Your task to perform on an android device: Go to Google maps Image 0: 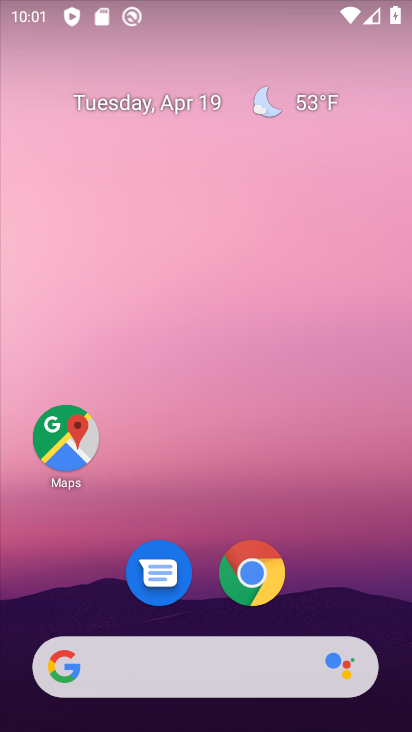
Step 0: drag from (199, 726) to (201, 136)
Your task to perform on an android device: Go to Google maps Image 1: 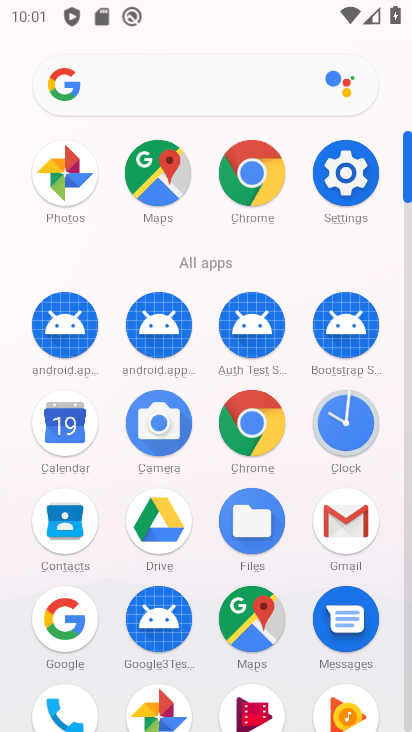
Step 1: click (251, 622)
Your task to perform on an android device: Go to Google maps Image 2: 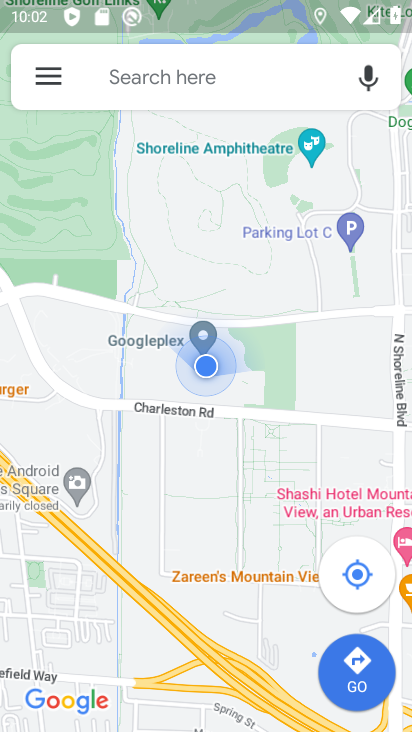
Step 2: task complete